Your task to perform on an android device: Open my contact list Image 0: 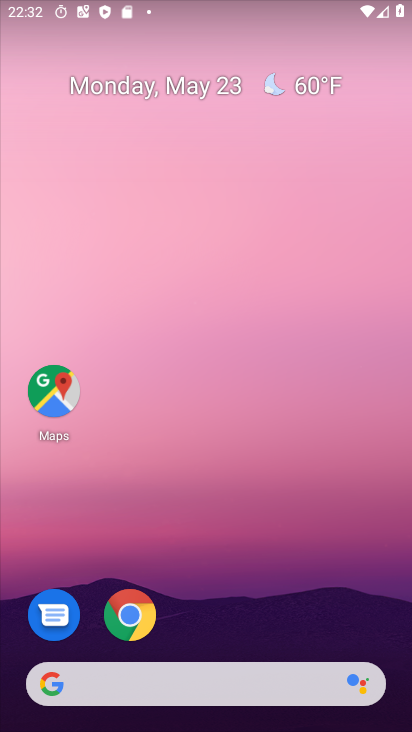
Step 0: drag from (243, 530) to (231, 144)
Your task to perform on an android device: Open my contact list Image 1: 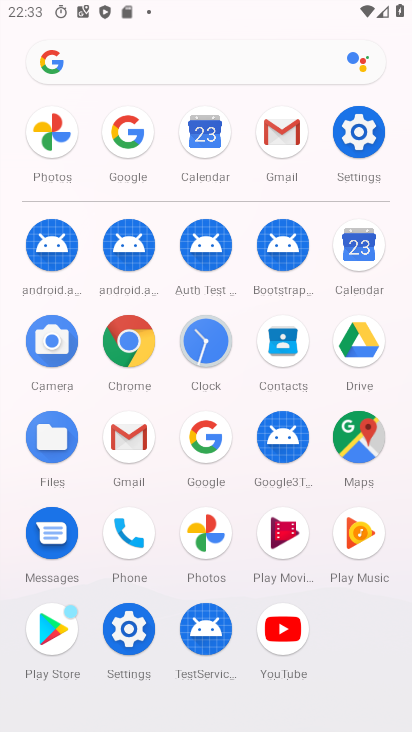
Step 1: click (274, 343)
Your task to perform on an android device: Open my contact list Image 2: 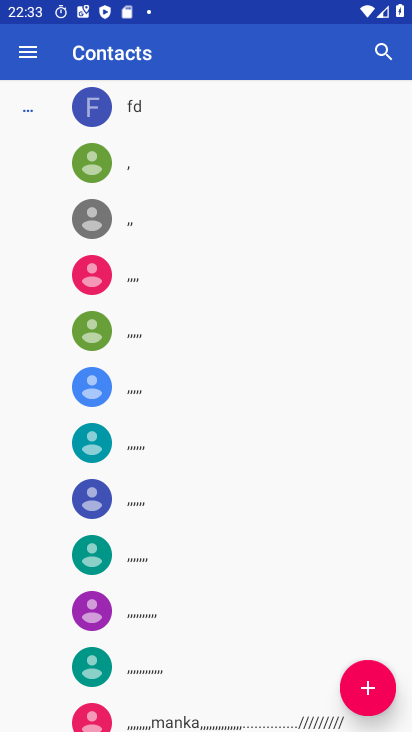
Step 2: task complete